Your task to perform on an android device: change text size in settings app Image 0: 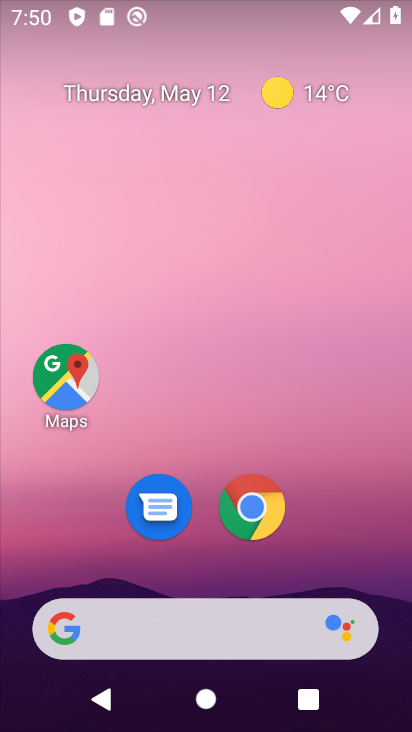
Step 0: drag from (269, 500) to (215, 100)
Your task to perform on an android device: change text size in settings app Image 1: 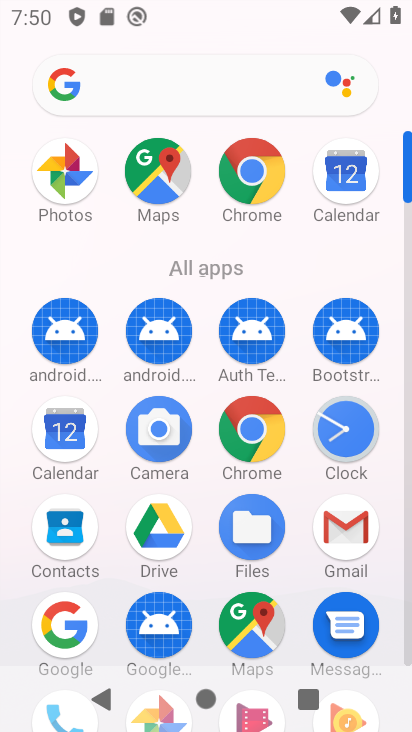
Step 1: drag from (200, 531) to (195, 91)
Your task to perform on an android device: change text size in settings app Image 2: 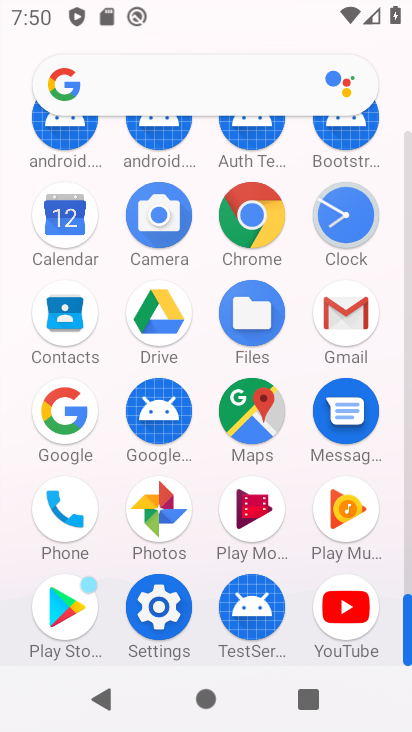
Step 2: click (142, 615)
Your task to perform on an android device: change text size in settings app Image 3: 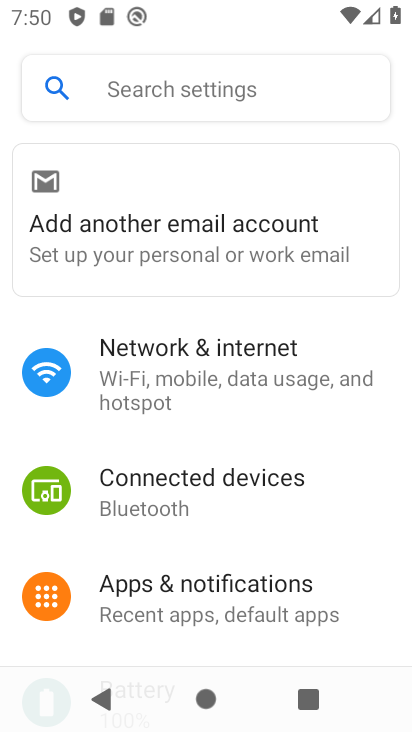
Step 3: drag from (289, 592) to (206, 215)
Your task to perform on an android device: change text size in settings app Image 4: 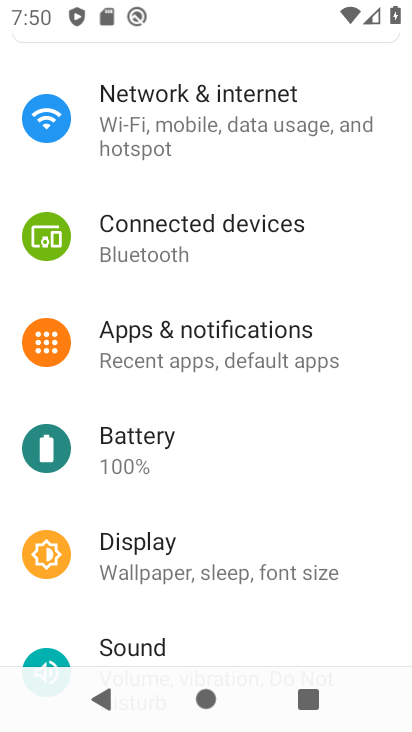
Step 4: click (267, 577)
Your task to perform on an android device: change text size in settings app Image 5: 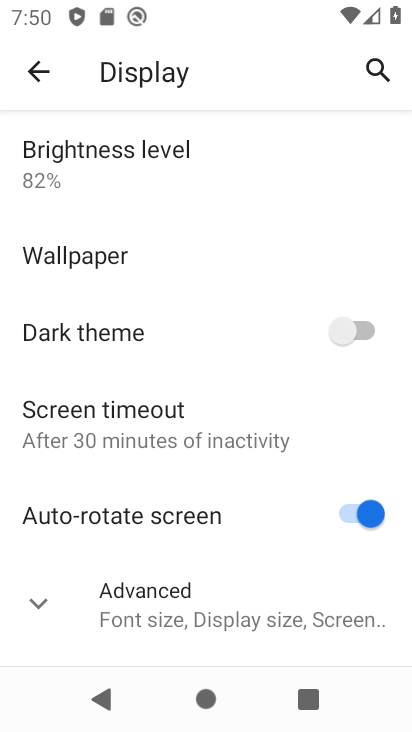
Step 5: drag from (277, 579) to (209, 233)
Your task to perform on an android device: change text size in settings app Image 6: 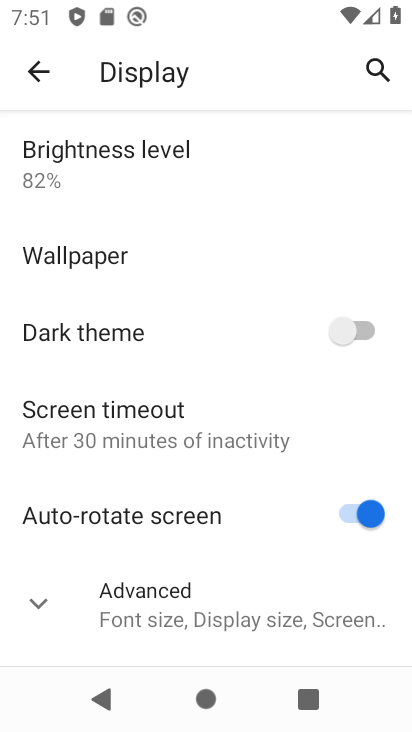
Step 6: click (248, 629)
Your task to perform on an android device: change text size in settings app Image 7: 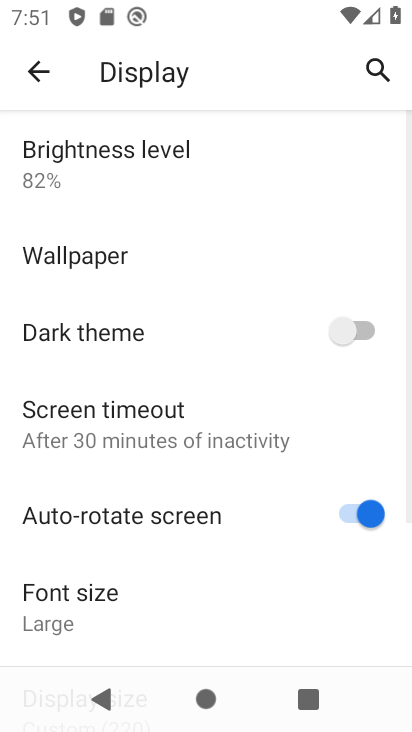
Step 7: click (170, 623)
Your task to perform on an android device: change text size in settings app Image 8: 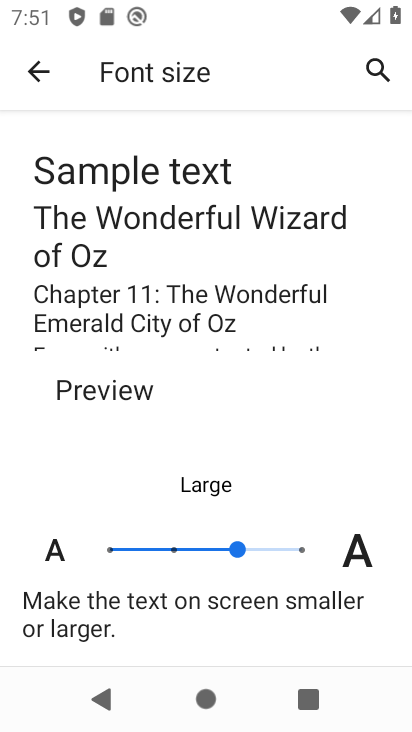
Step 8: click (178, 546)
Your task to perform on an android device: change text size in settings app Image 9: 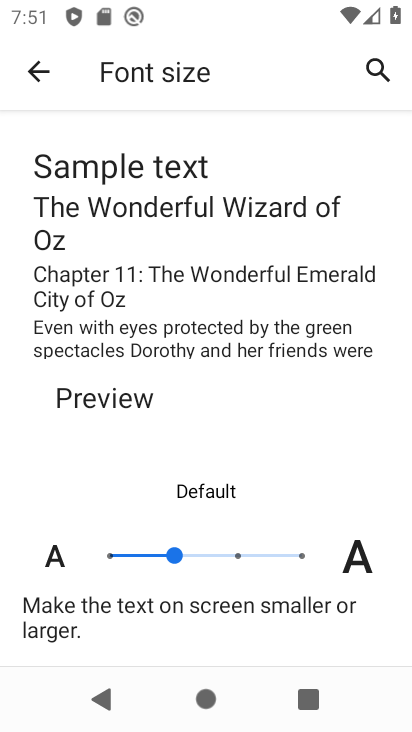
Step 9: task complete